Your task to perform on an android device: What's on my calendar today? Image 0: 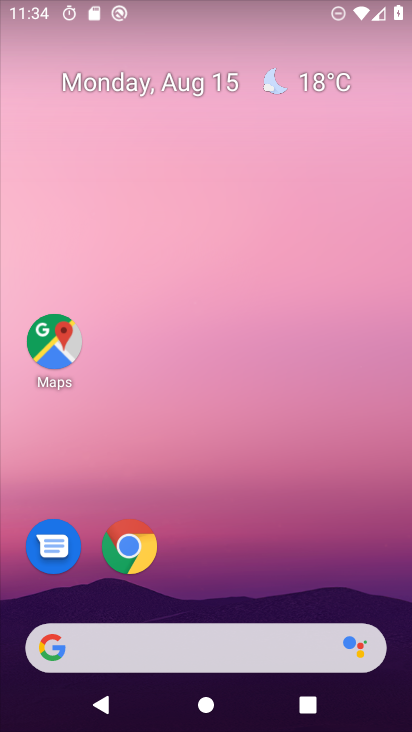
Step 0: drag from (250, 607) to (251, 131)
Your task to perform on an android device: What's on my calendar today? Image 1: 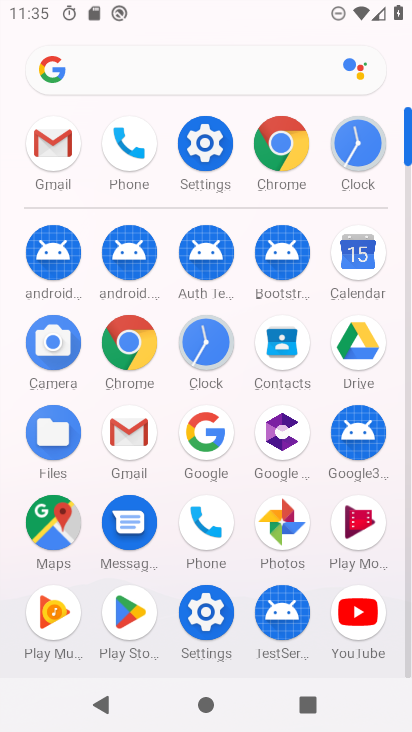
Step 1: click (356, 250)
Your task to perform on an android device: What's on my calendar today? Image 2: 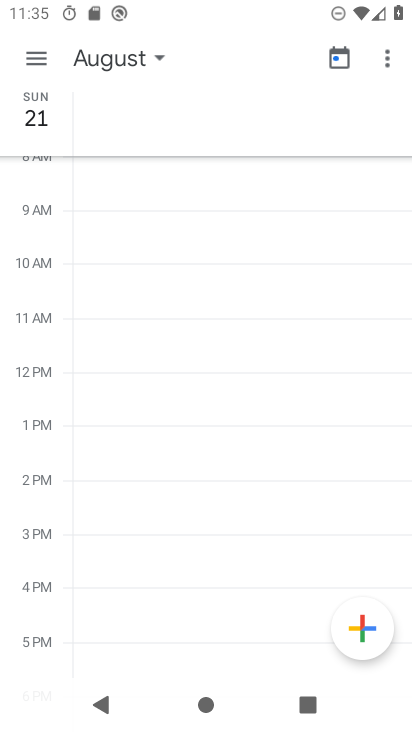
Step 2: click (157, 55)
Your task to perform on an android device: What's on my calendar today? Image 3: 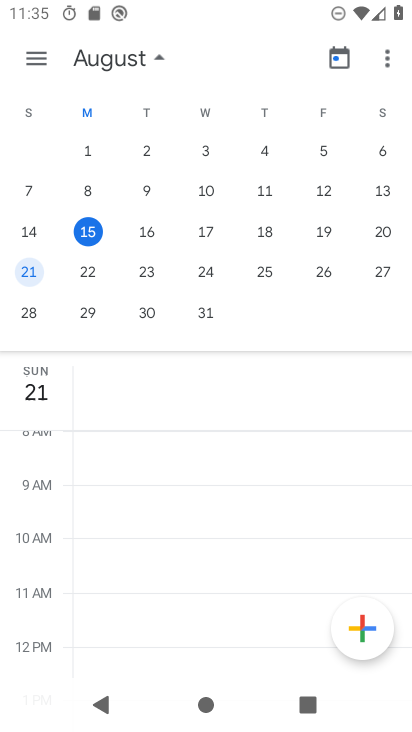
Step 3: click (84, 231)
Your task to perform on an android device: What's on my calendar today? Image 4: 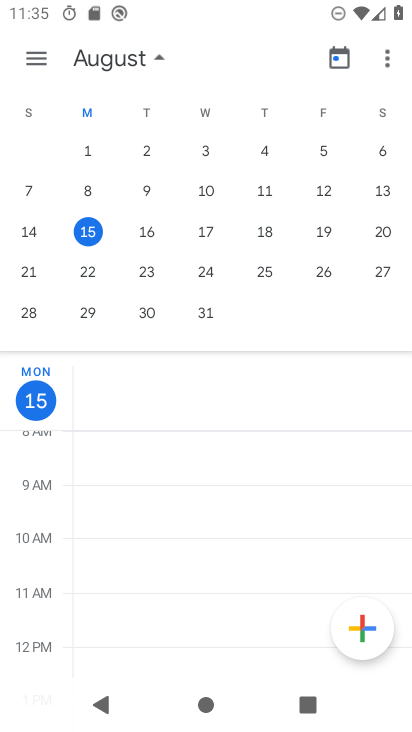
Step 4: click (84, 231)
Your task to perform on an android device: What's on my calendar today? Image 5: 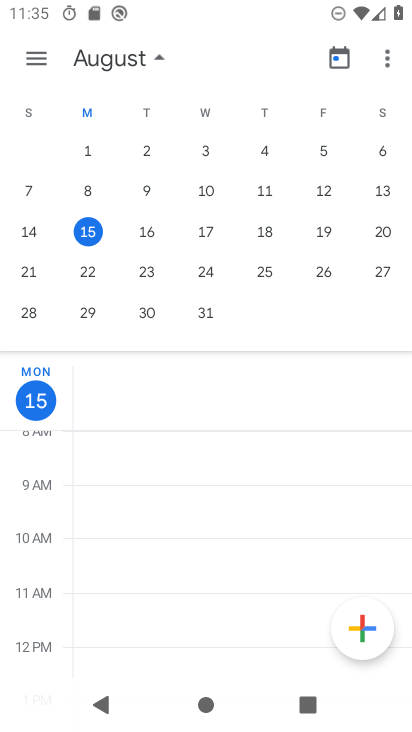
Step 5: click (84, 231)
Your task to perform on an android device: What's on my calendar today? Image 6: 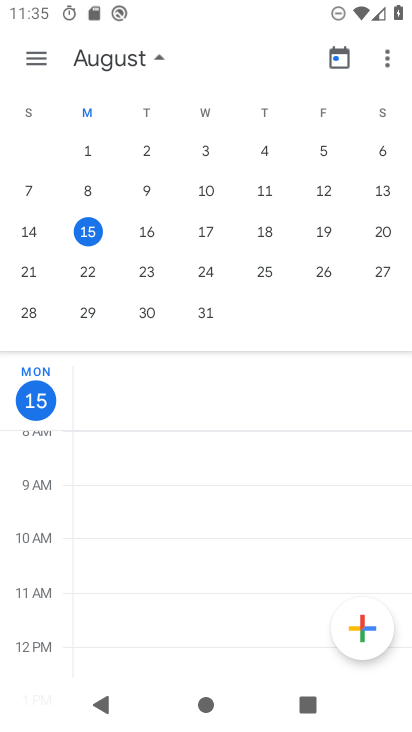
Step 6: click (33, 395)
Your task to perform on an android device: What's on my calendar today? Image 7: 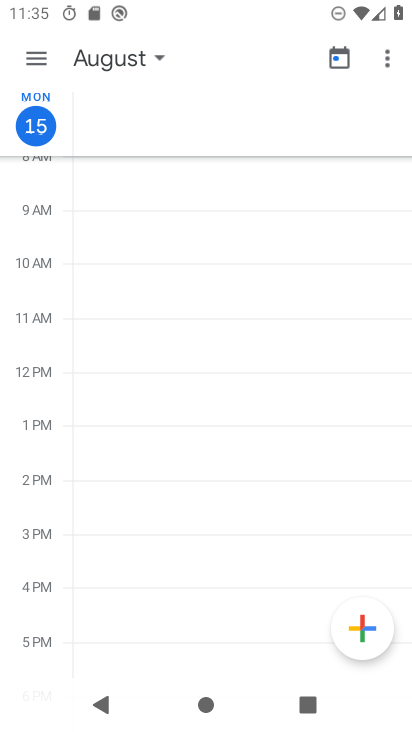
Step 7: task complete